Your task to perform on an android device: turn on data saver in the chrome app Image 0: 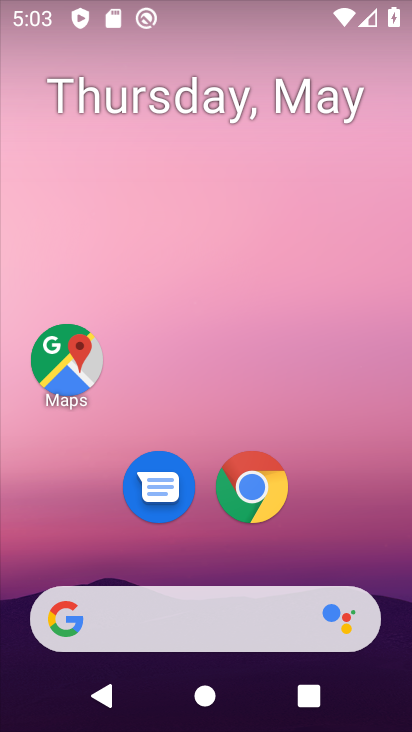
Step 0: click (277, 483)
Your task to perform on an android device: turn on data saver in the chrome app Image 1: 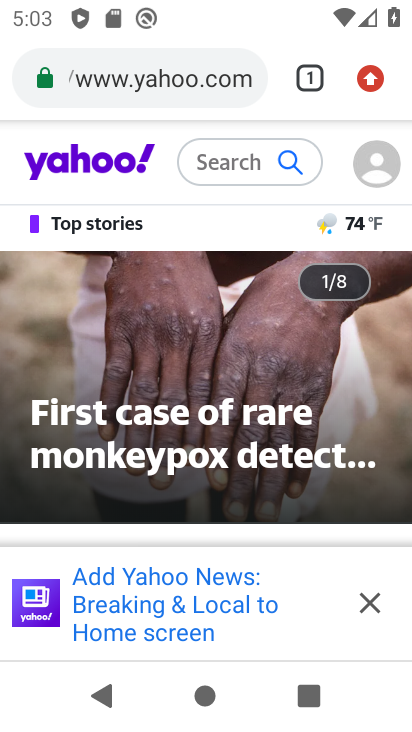
Step 1: click (370, 78)
Your task to perform on an android device: turn on data saver in the chrome app Image 2: 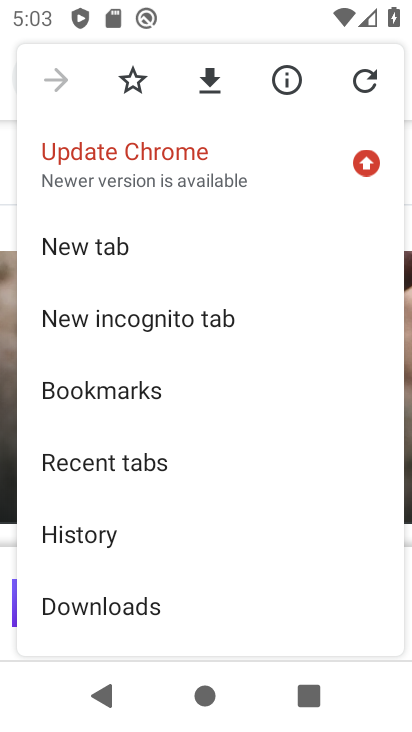
Step 2: drag from (253, 521) to (219, 108)
Your task to perform on an android device: turn on data saver in the chrome app Image 3: 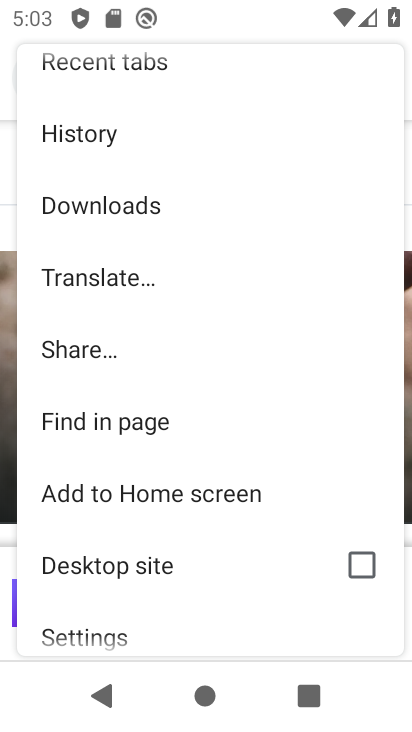
Step 3: click (173, 629)
Your task to perform on an android device: turn on data saver in the chrome app Image 4: 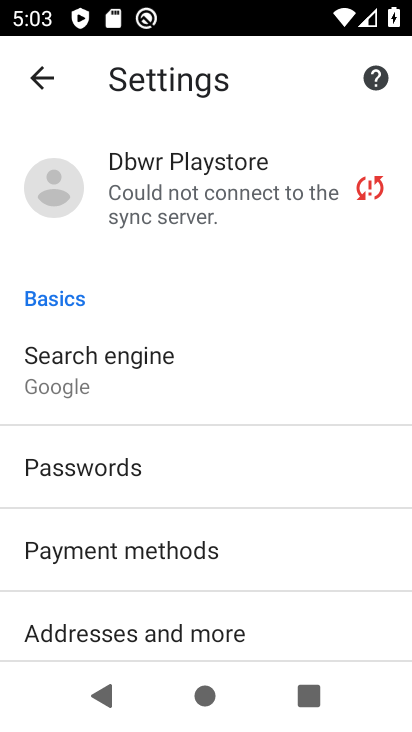
Step 4: drag from (211, 563) to (242, 154)
Your task to perform on an android device: turn on data saver in the chrome app Image 5: 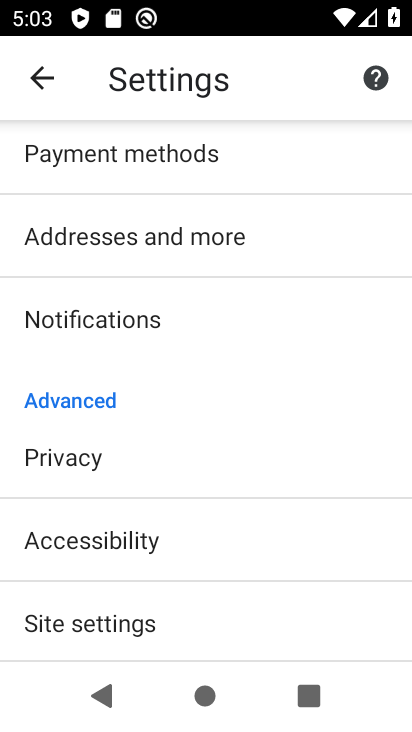
Step 5: drag from (243, 529) to (272, 206)
Your task to perform on an android device: turn on data saver in the chrome app Image 6: 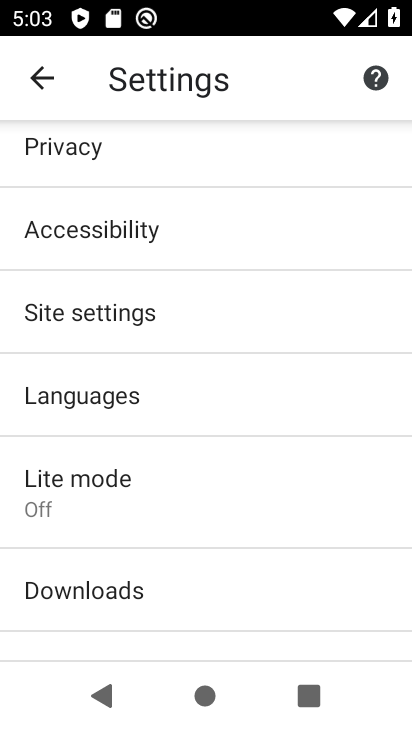
Step 6: click (153, 490)
Your task to perform on an android device: turn on data saver in the chrome app Image 7: 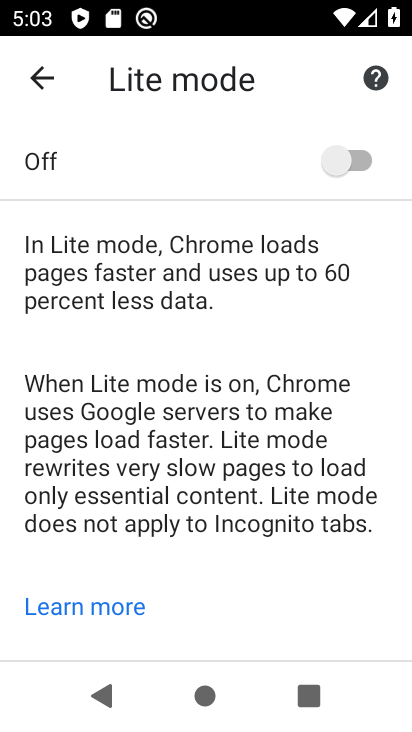
Step 7: click (351, 154)
Your task to perform on an android device: turn on data saver in the chrome app Image 8: 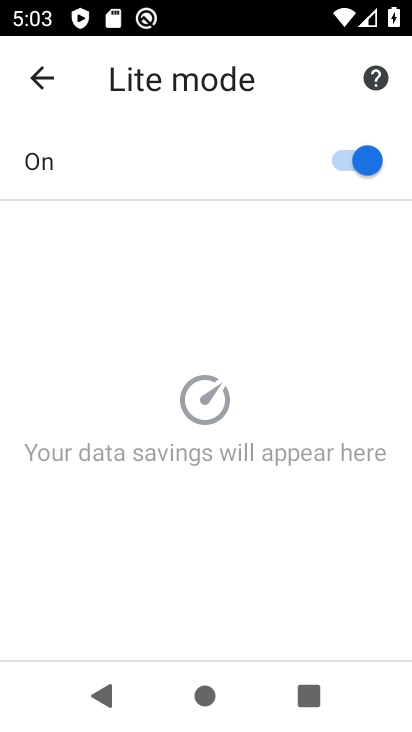
Step 8: task complete